Your task to perform on an android device: turn on javascript in the chrome app Image 0: 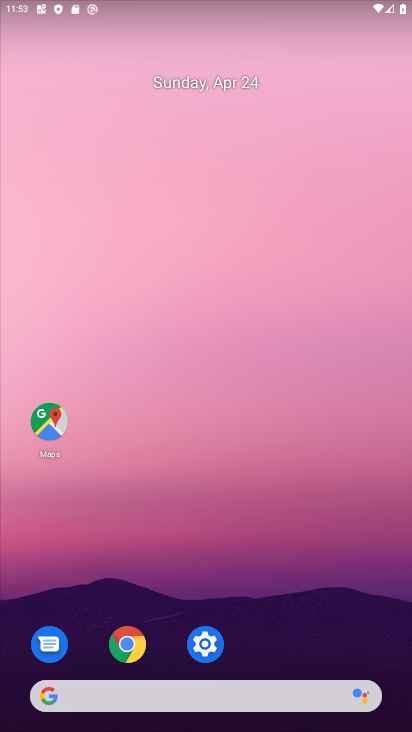
Step 0: drag from (263, 705) to (209, 40)
Your task to perform on an android device: turn on javascript in the chrome app Image 1: 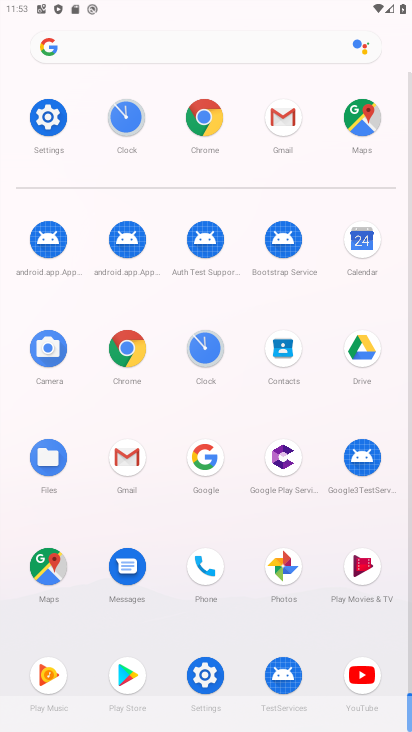
Step 1: drag from (202, 118) to (249, 161)
Your task to perform on an android device: turn on javascript in the chrome app Image 2: 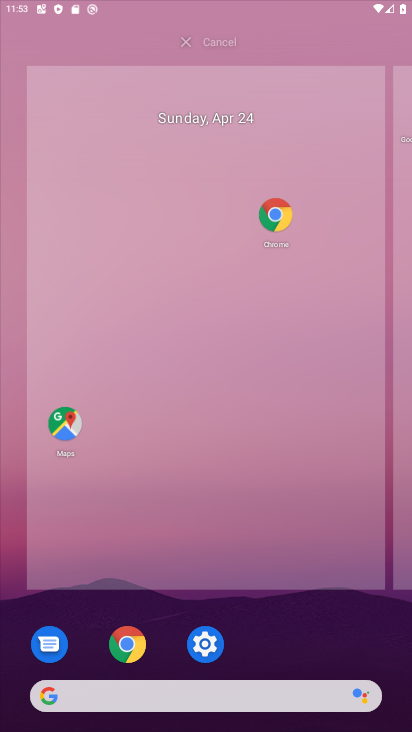
Step 2: drag from (313, 641) to (236, 80)
Your task to perform on an android device: turn on javascript in the chrome app Image 3: 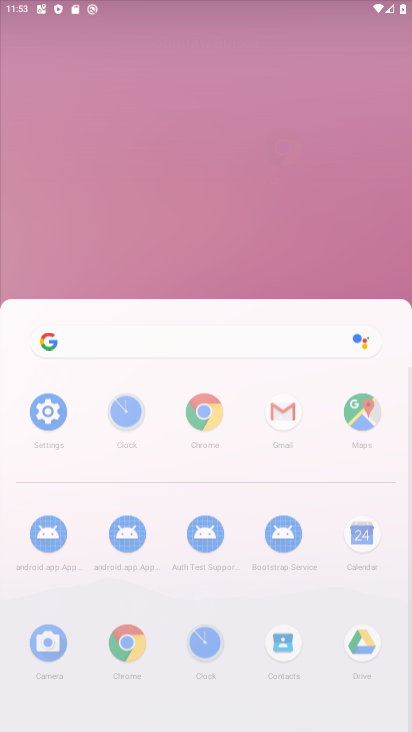
Step 3: drag from (306, 623) to (157, 72)
Your task to perform on an android device: turn on javascript in the chrome app Image 4: 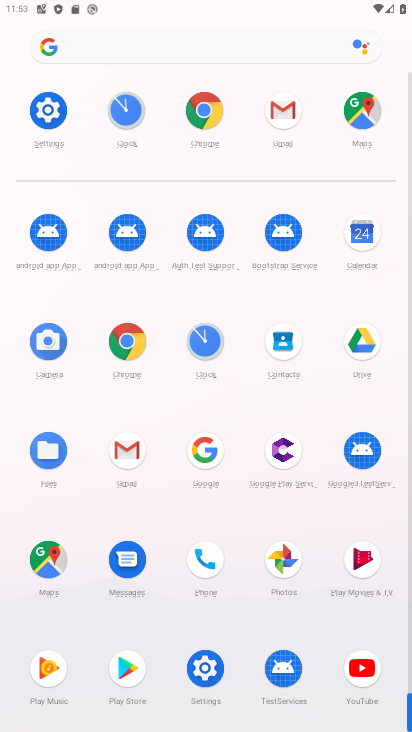
Step 4: click (210, 97)
Your task to perform on an android device: turn on javascript in the chrome app Image 5: 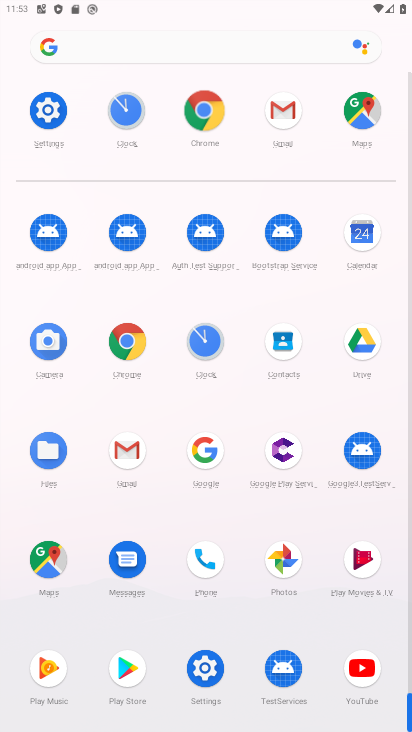
Step 5: click (211, 97)
Your task to perform on an android device: turn on javascript in the chrome app Image 6: 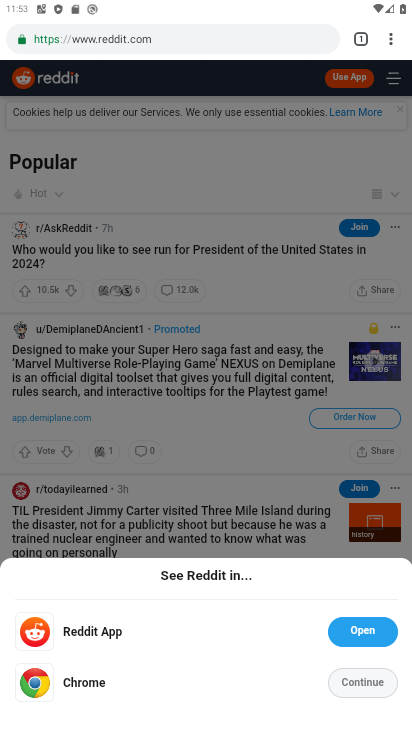
Step 6: drag from (389, 45) to (259, 480)
Your task to perform on an android device: turn on javascript in the chrome app Image 7: 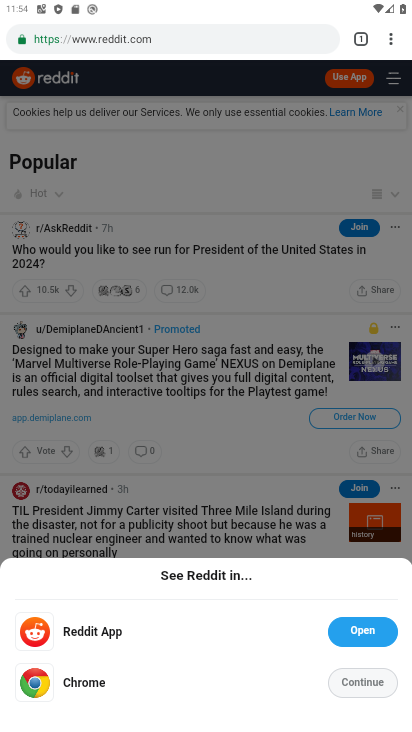
Step 7: click (261, 476)
Your task to perform on an android device: turn on javascript in the chrome app Image 8: 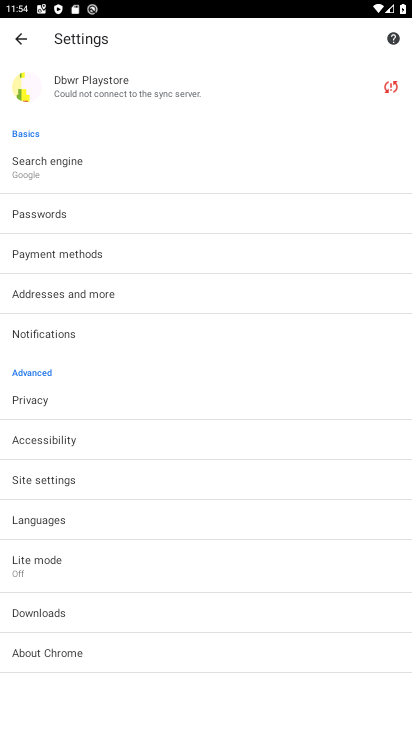
Step 8: click (265, 472)
Your task to perform on an android device: turn on javascript in the chrome app Image 9: 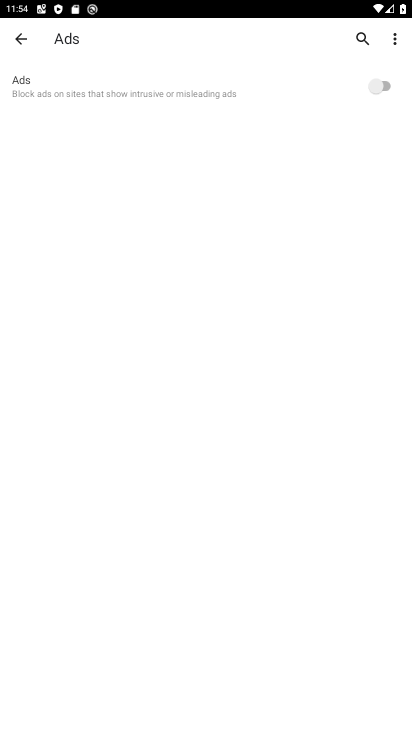
Step 9: click (12, 40)
Your task to perform on an android device: turn on javascript in the chrome app Image 10: 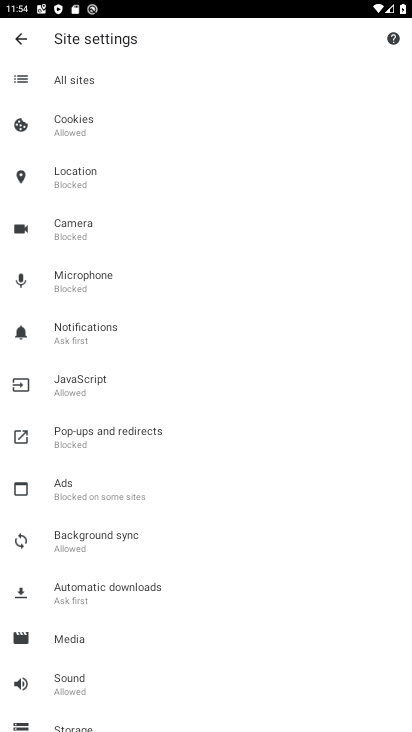
Step 10: click (75, 387)
Your task to perform on an android device: turn on javascript in the chrome app Image 11: 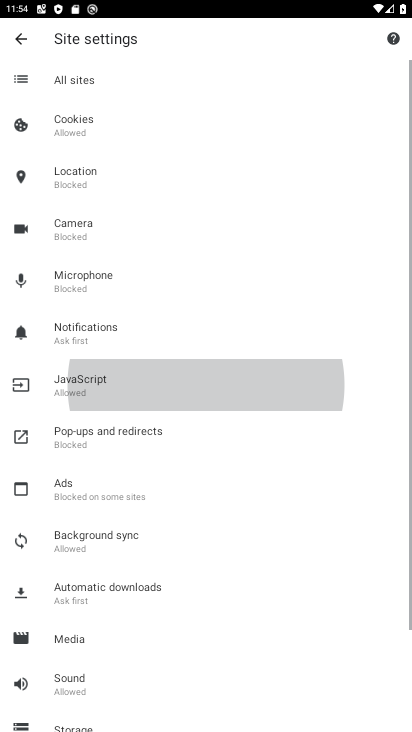
Step 11: click (75, 387)
Your task to perform on an android device: turn on javascript in the chrome app Image 12: 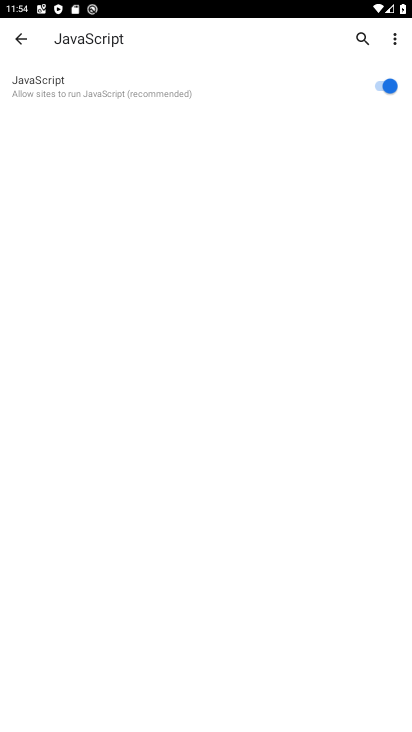
Step 12: task complete